Your task to perform on an android device: open a new tab in the chrome app Image 0: 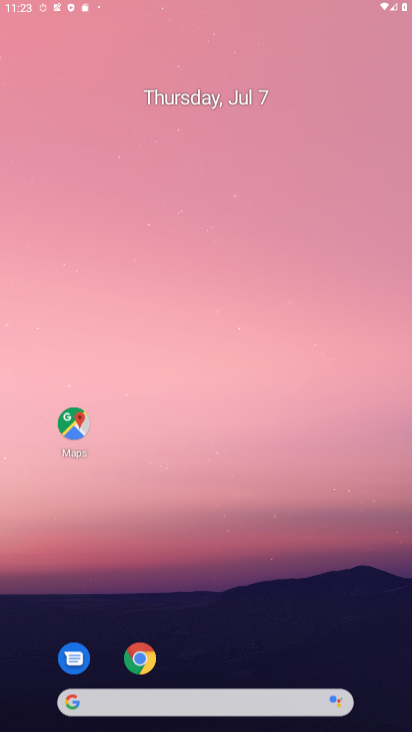
Step 0: press home button
Your task to perform on an android device: open a new tab in the chrome app Image 1: 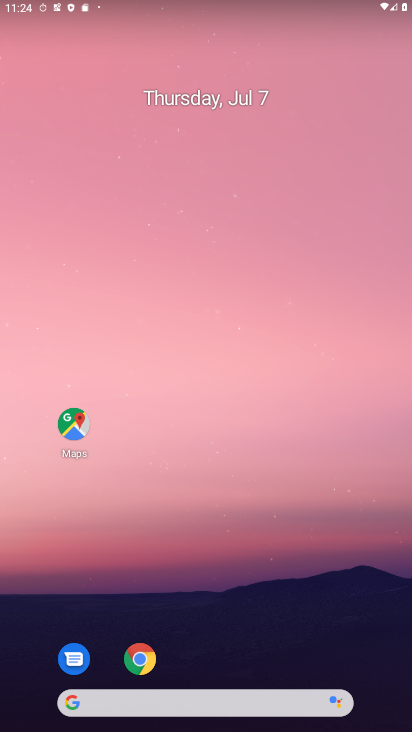
Step 1: click (138, 662)
Your task to perform on an android device: open a new tab in the chrome app Image 2: 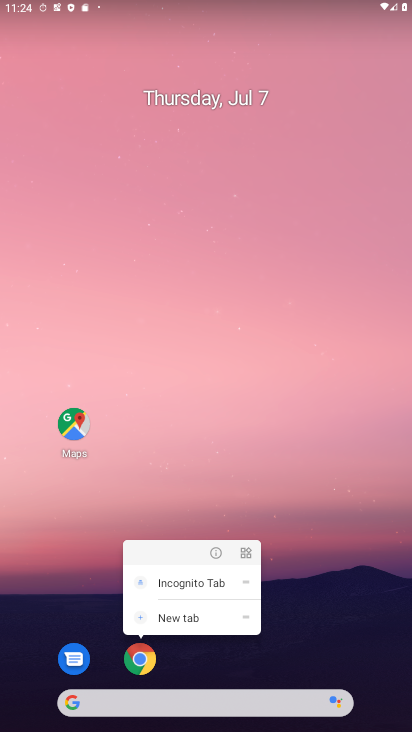
Step 2: click (138, 662)
Your task to perform on an android device: open a new tab in the chrome app Image 3: 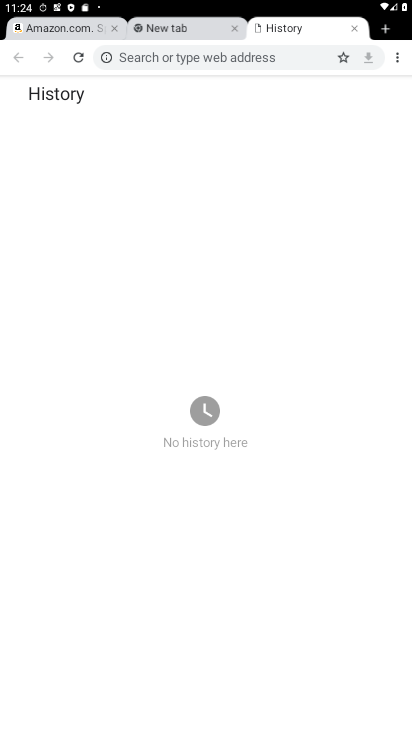
Step 3: click (381, 28)
Your task to perform on an android device: open a new tab in the chrome app Image 4: 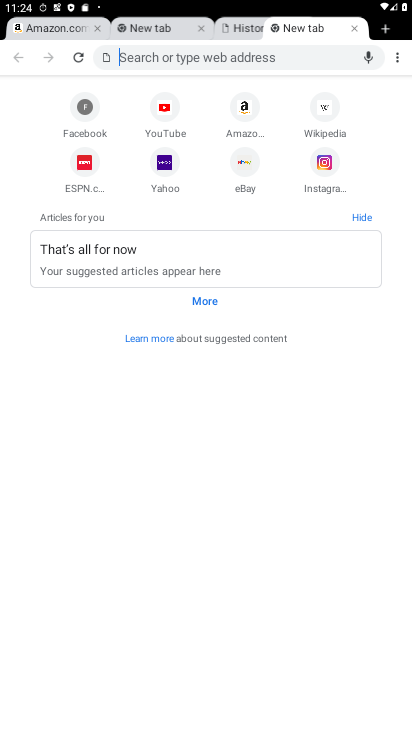
Step 4: task complete